Your task to perform on an android device: toggle pop-ups in chrome Image 0: 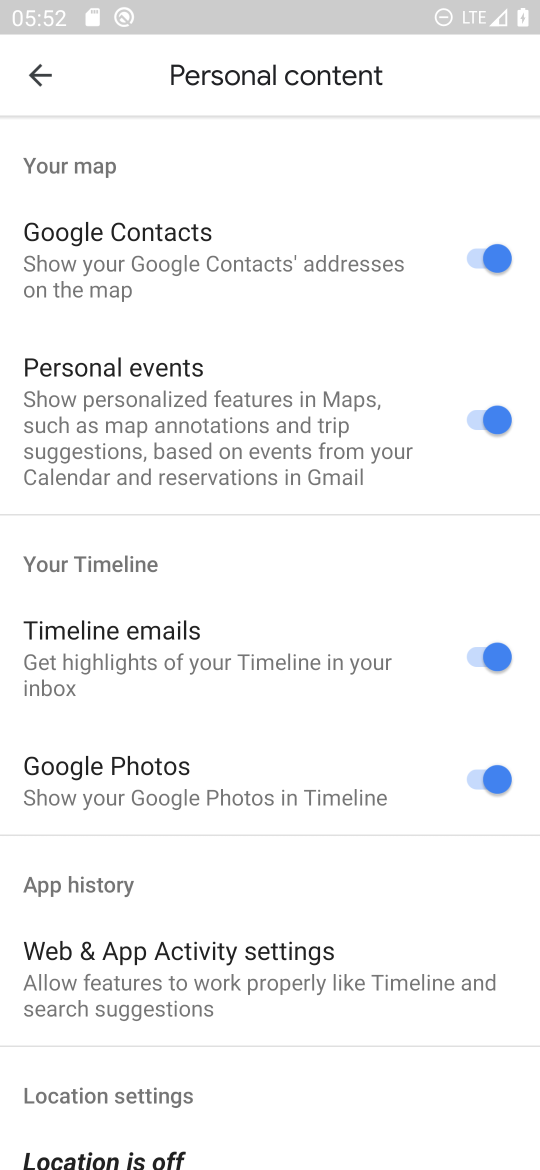
Step 0: press home button
Your task to perform on an android device: toggle pop-ups in chrome Image 1: 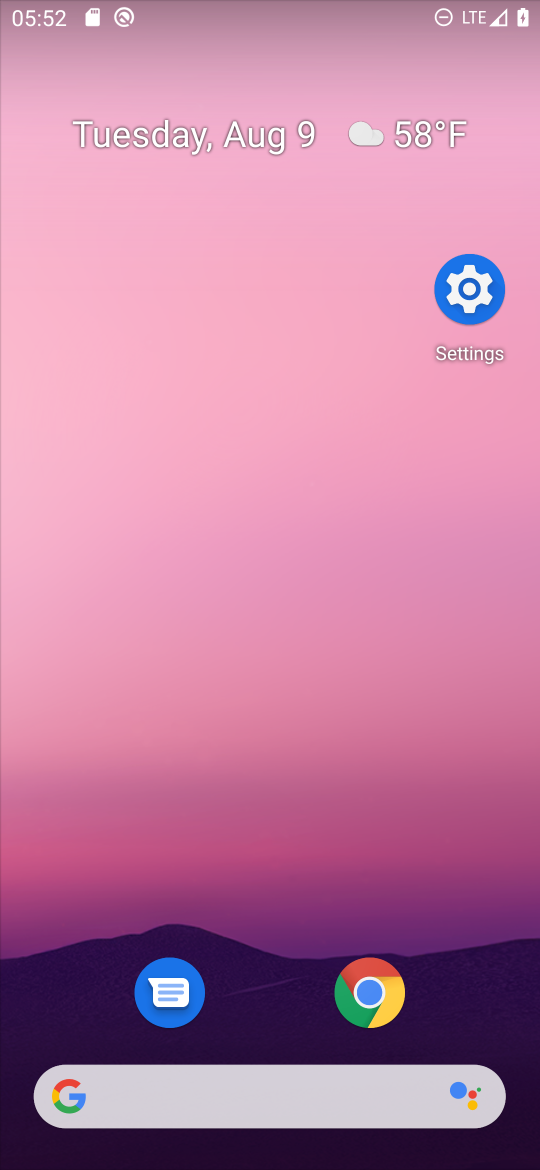
Step 1: drag from (237, 1103) to (249, 0)
Your task to perform on an android device: toggle pop-ups in chrome Image 2: 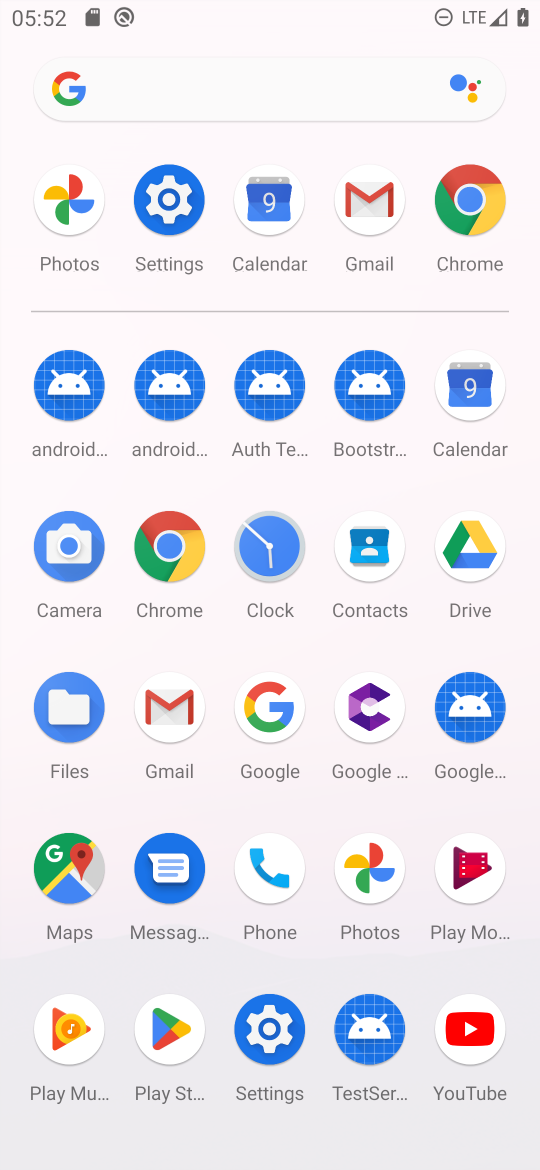
Step 2: click (166, 522)
Your task to perform on an android device: toggle pop-ups in chrome Image 3: 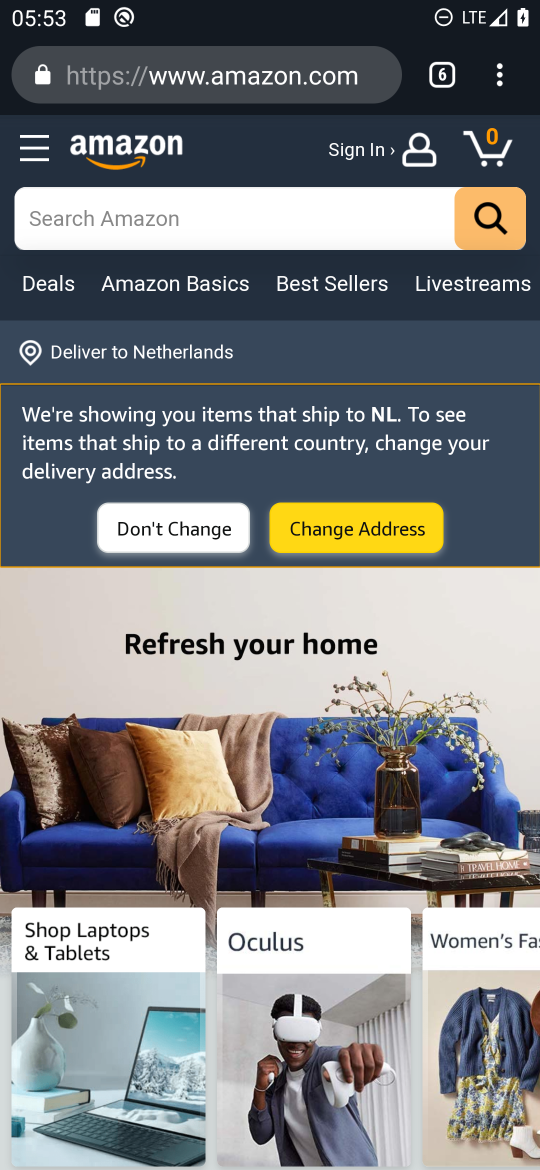
Step 3: click (497, 63)
Your task to perform on an android device: toggle pop-ups in chrome Image 4: 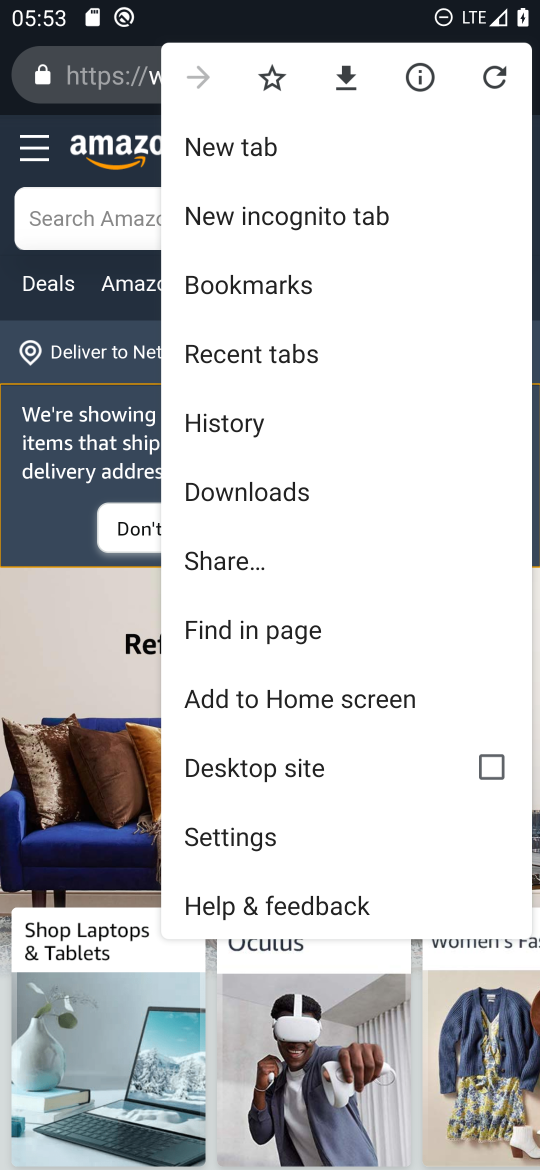
Step 4: click (245, 844)
Your task to perform on an android device: toggle pop-ups in chrome Image 5: 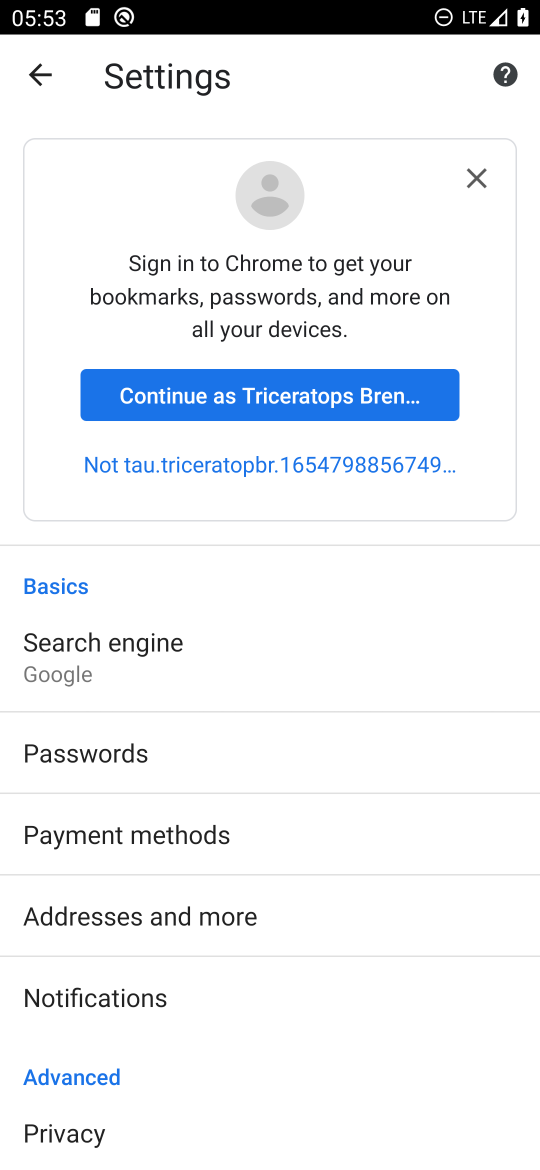
Step 5: drag from (234, 1072) to (209, 365)
Your task to perform on an android device: toggle pop-ups in chrome Image 6: 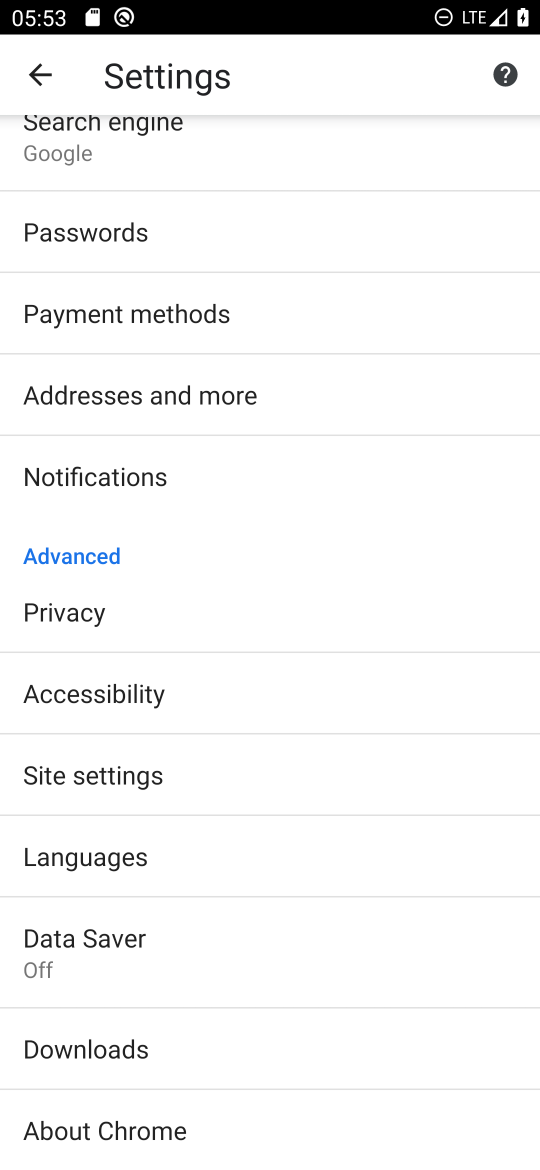
Step 6: click (98, 794)
Your task to perform on an android device: toggle pop-ups in chrome Image 7: 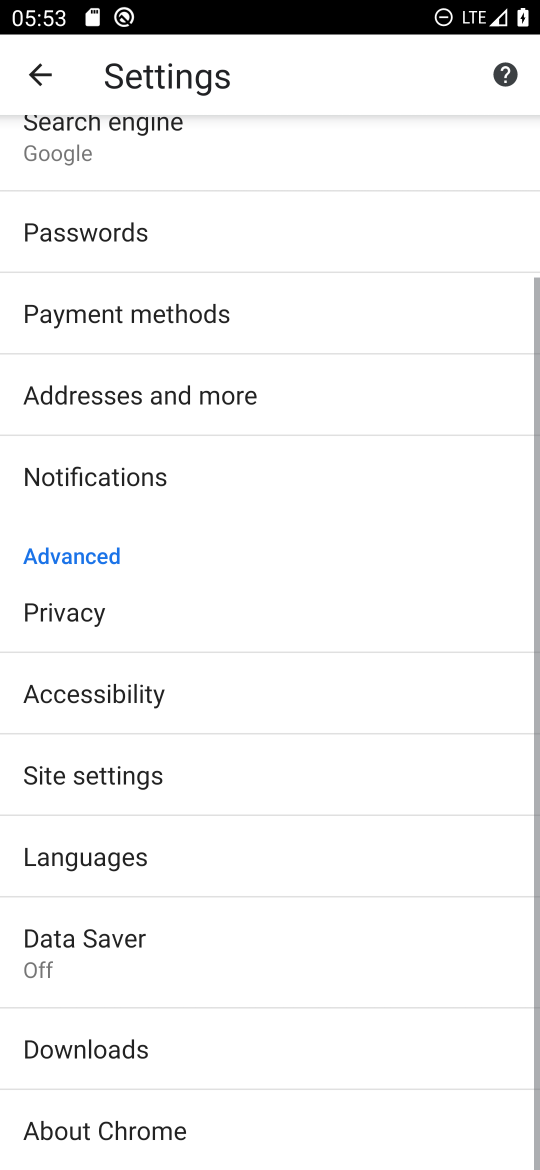
Step 7: click (98, 794)
Your task to perform on an android device: toggle pop-ups in chrome Image 8: 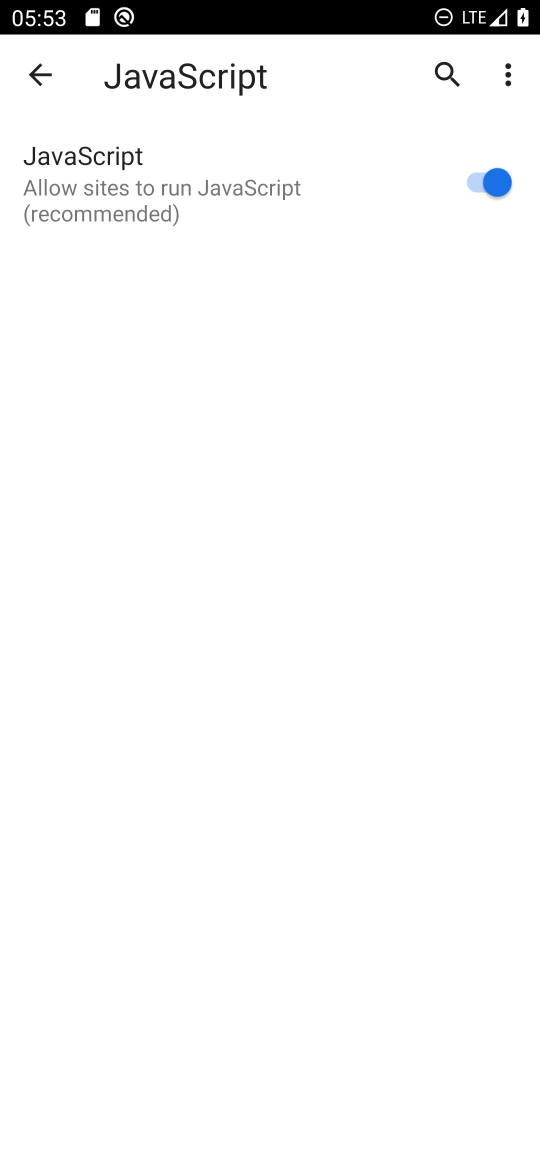
Step 8: press back button
Your task to perform on an android device: toggle pop-ups in chrome Image 9: 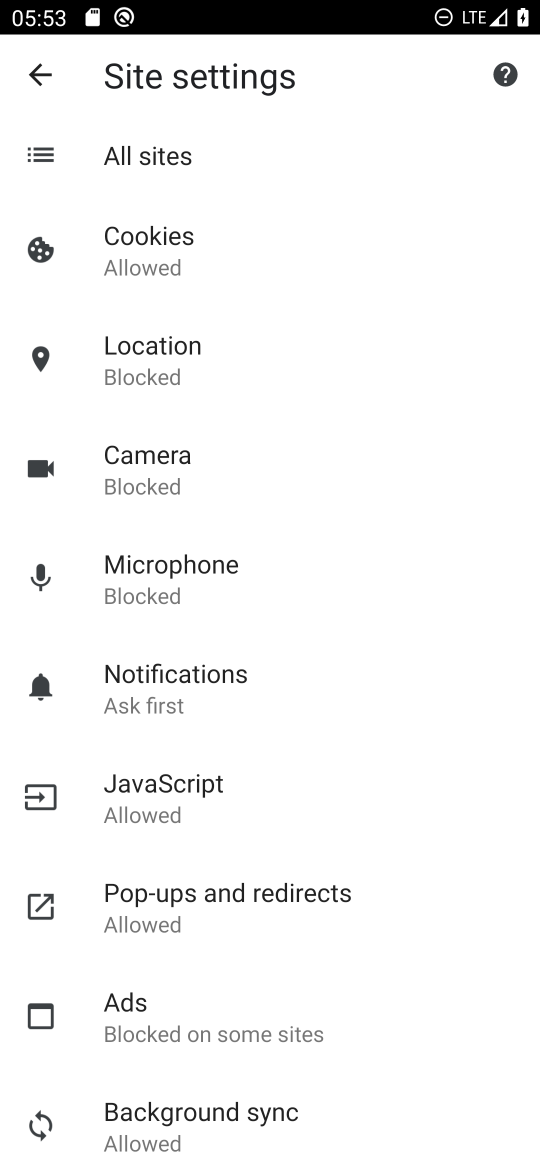
Step 9: click (234, 912)
Your task to perform on an android device: toggle pop-ups in chrome Image 10: 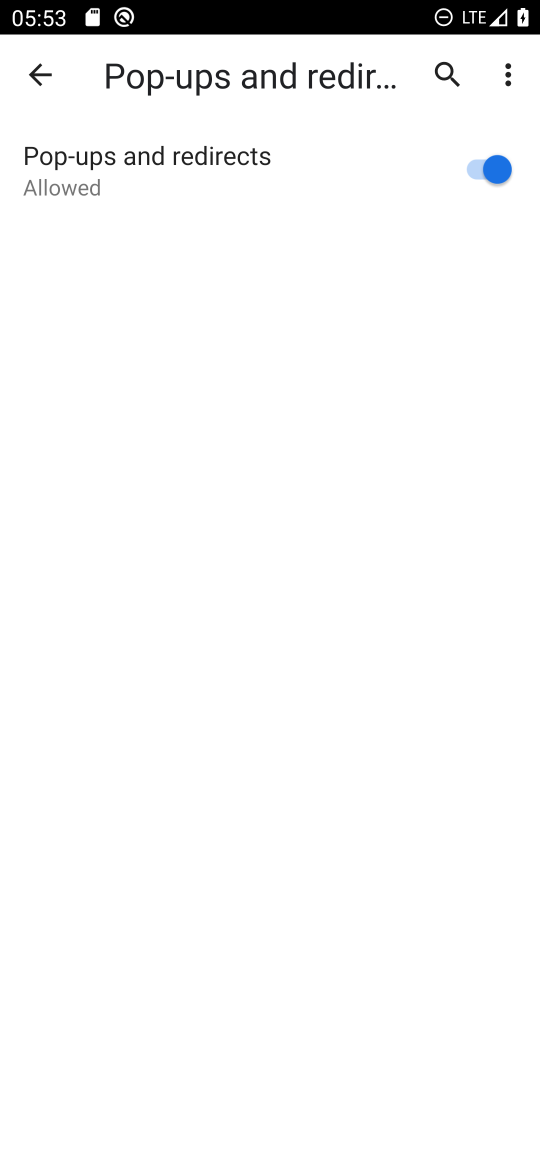
Step 10: task complete